Your task to perform on an android device: check data usage Image 0: 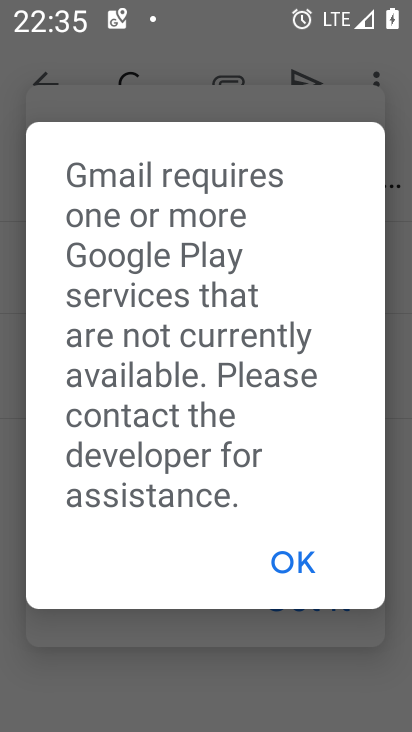
Step 0: press home button
Your task to perform on an android device: check data usage Image 1: 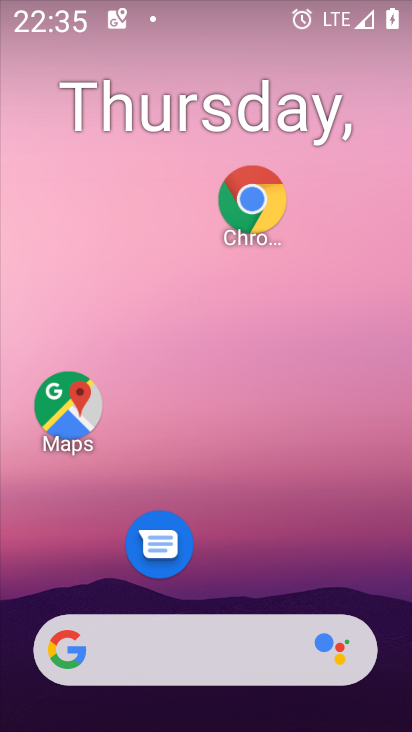
Step 1: drag from (253, 589) to (113, 39)
Your task to perform on an android device: check data usage Image 2: 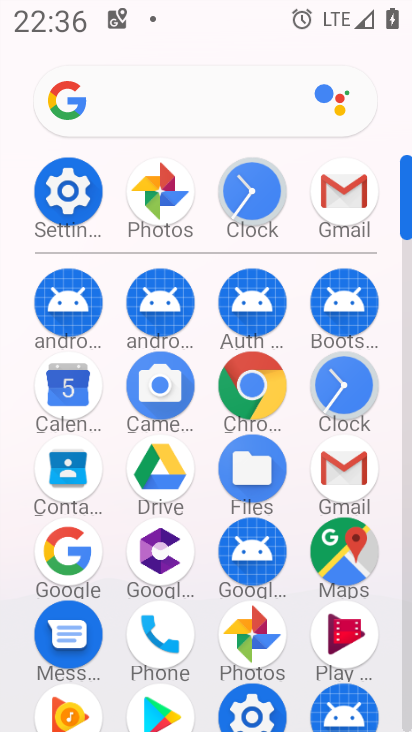
Step 2: click (72, 207)
Your task to perform on an android device: check data usage Image 3: 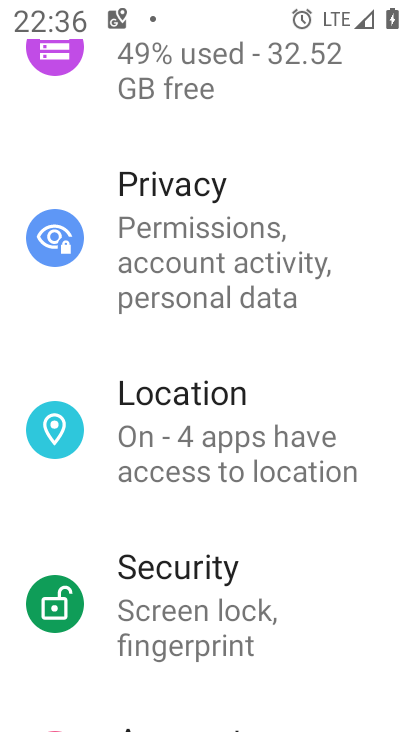
Step 3: drag from (121, 153) to (244, 602)
Your task to perform on an android device: check data usage Image 4: 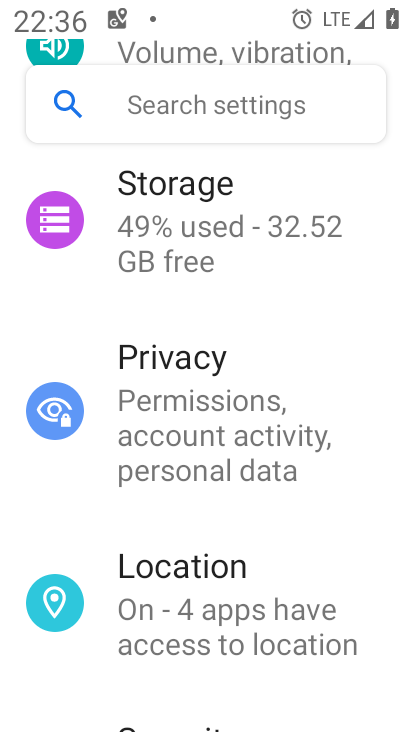
Step 4: drag from (310, 275) to (348, 708)
Your task to perform on an android device: check data usage Image 5: 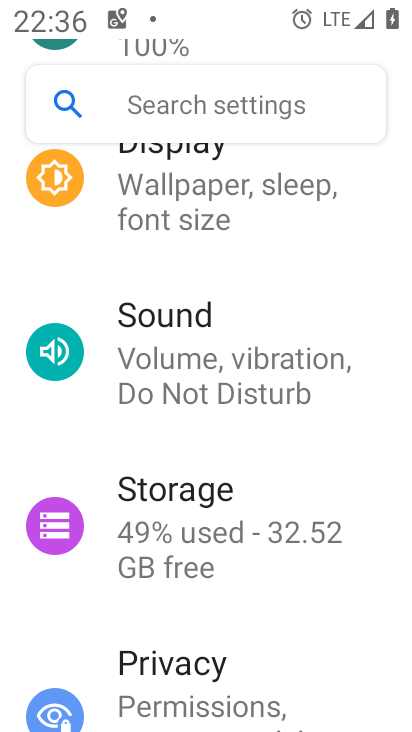
Step 5: drag from (343, 269) to (345, 624)
Your task to perform on an android device: check data usage Image 6: 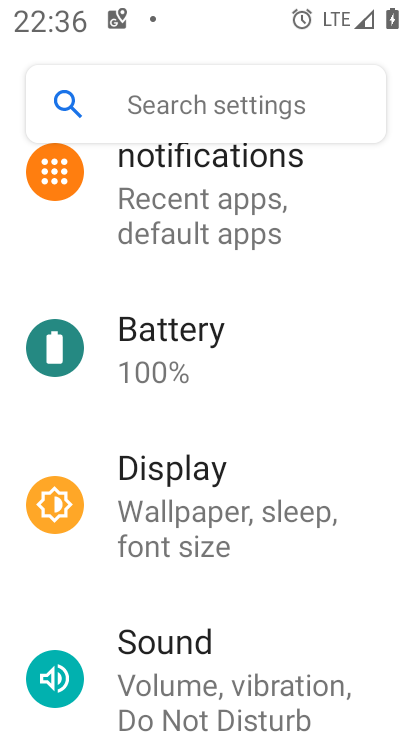
Step 6: drag from (268, 243) to (310, 660)
Your task to perform on an android device: check data usage Image 7: 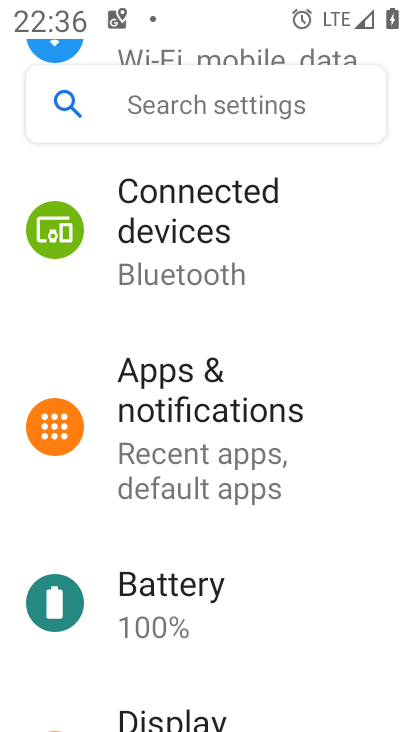
Step 7: drag from (260, 309) to (280, 700)
Your task to perform on an android device: check data usage Image 8: 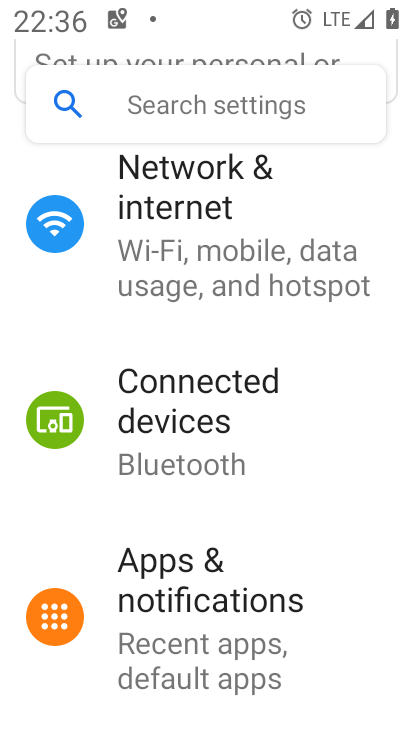
Step 8: click (301, 287)
Your task to perform on an android device: check data usage Image 9: 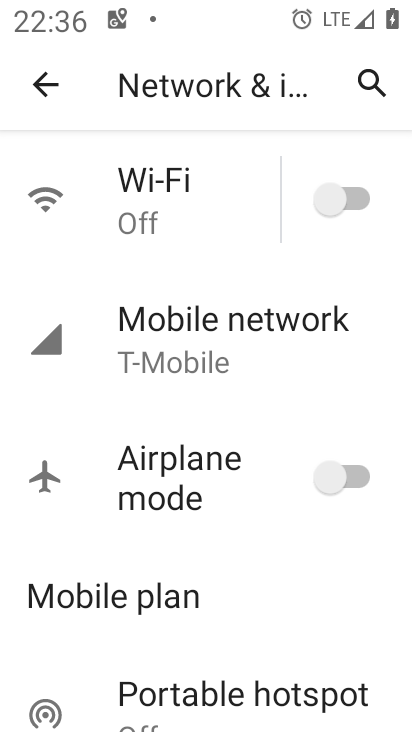
Step 9: click (175, 356)
Your task to perform on an android device: check data usage Image 10: 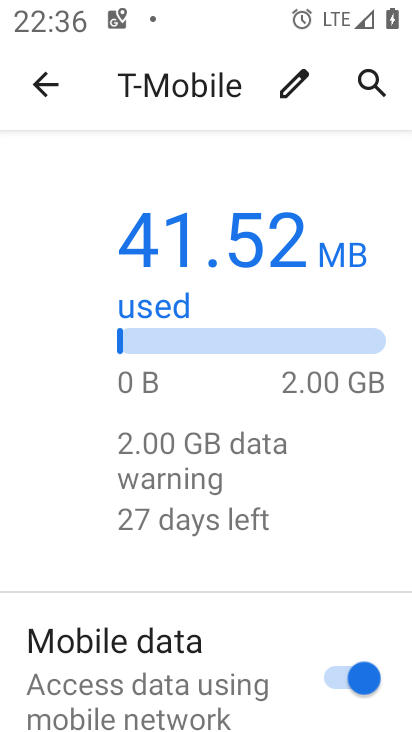
Step 10: task complete